Your task to perform on an android device: Clear the shopping cart on walmart.com. Image 0: 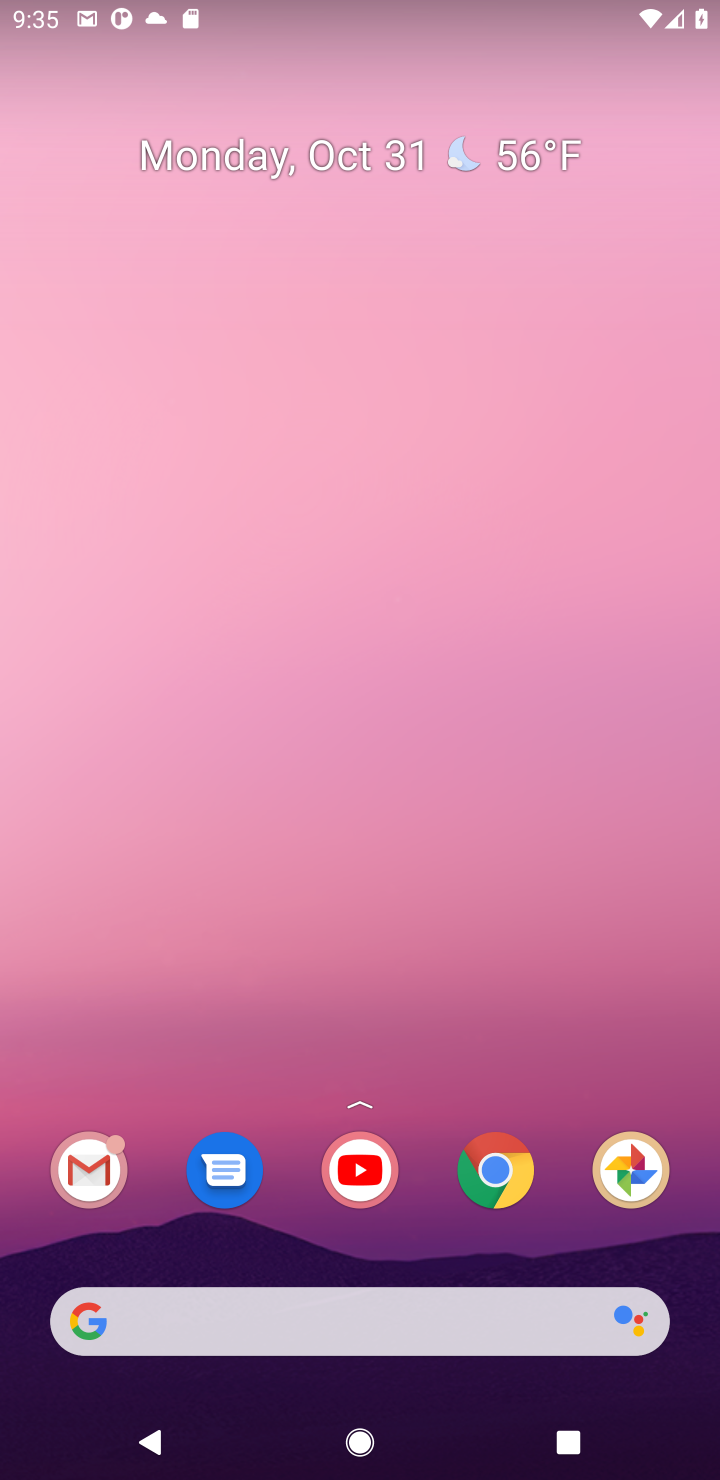
Step 0: click (520, 1170)
Your task to perform on an android device: Clear the shopping cart on walmart.com. Image 1: 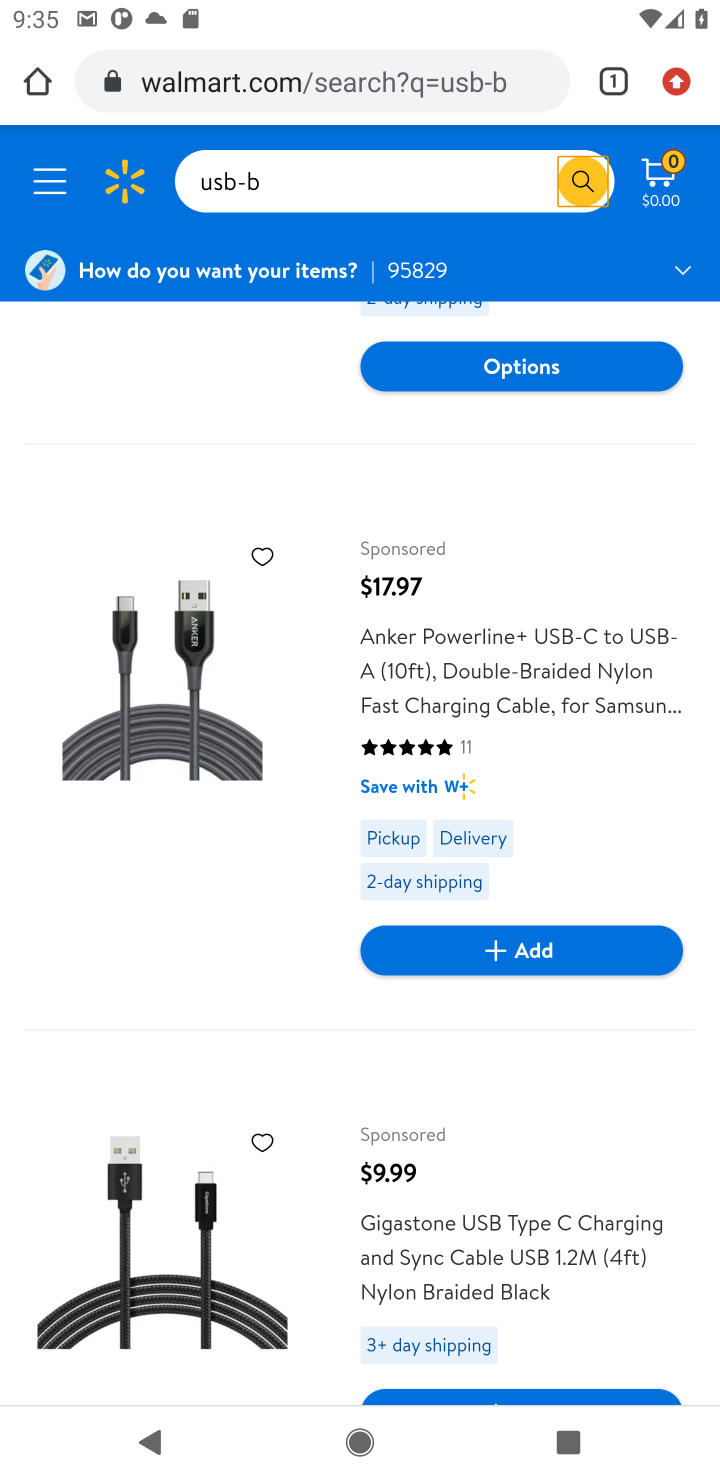
Step 1: click (673, 179)
Your task to perform on an android device: Clear the shopping cart on walmart.com. Image 2: 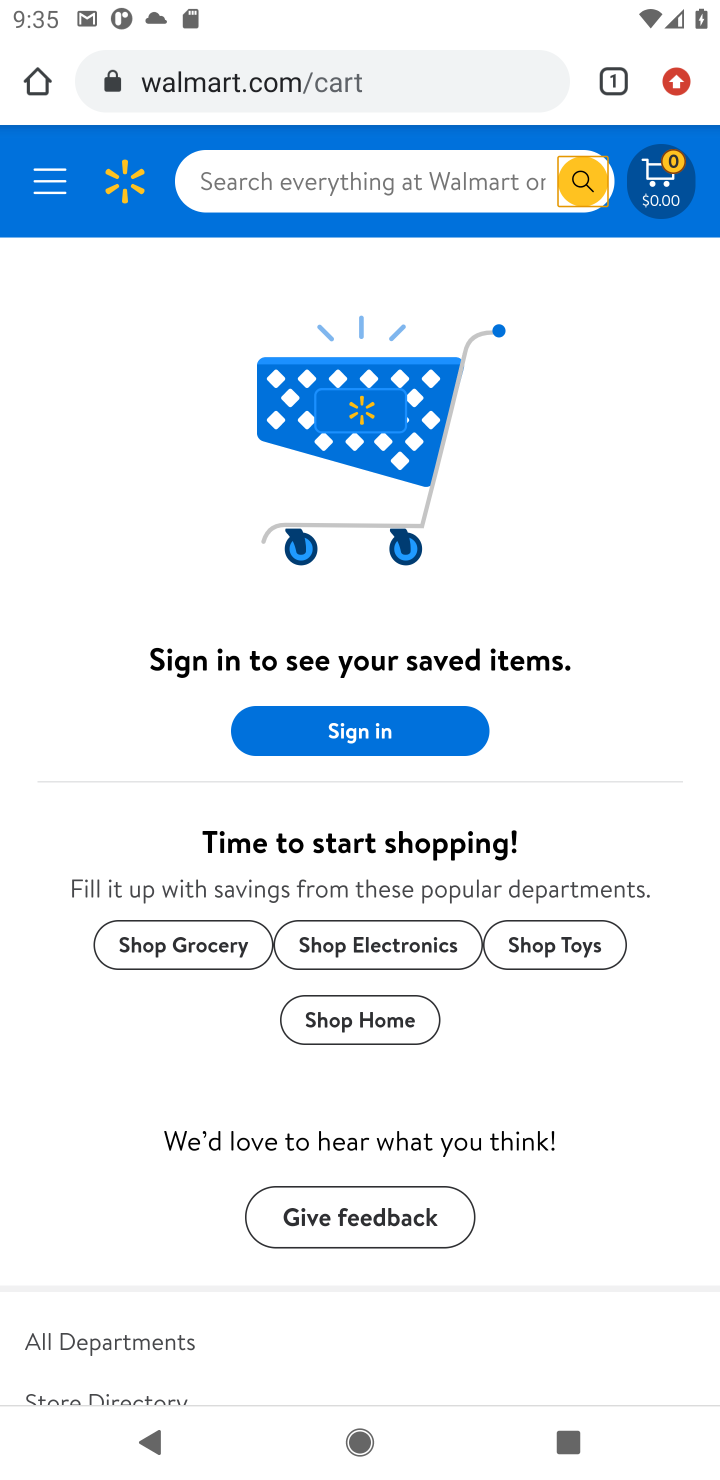
Step 2: task complete